Your task to perform on an android device: uninstall "Walmart Shopping & Grocery" Image 0: 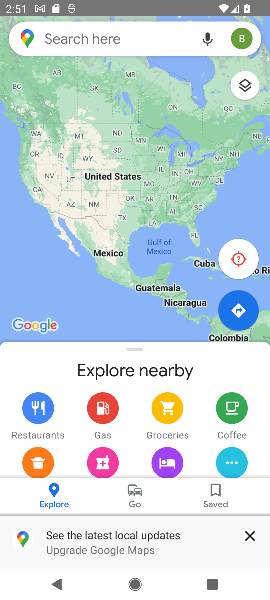
Step 0: press home button
Your task to perform on an android device: uninstall "Walmart Shopping & Grocery" Image 1: 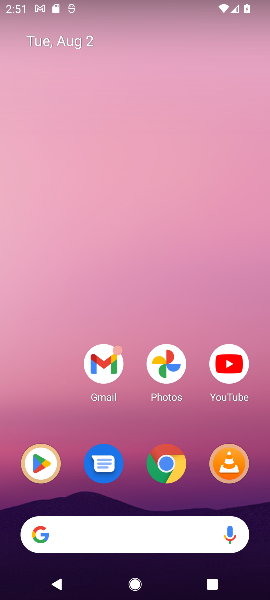
Step 1: click (44, 453)
Your task to perform on an android device: uninstall "Walmart Shopping & Grocery" Image 2: 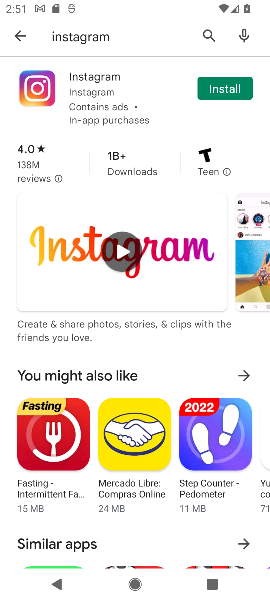
Step 2: click (207, 30)
Your task to perform on an android device: uninstall "Walmart Shopping & Grocery" Image 3: 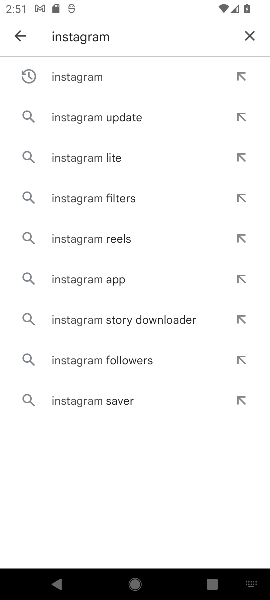
Step 3: click (248, 35)
Your task to perform on an android device: uninstall "Walmart Shopping & Grocery" Image 4: 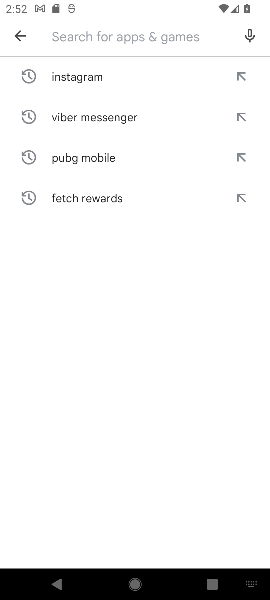
Step 4: type "Walmart Shopping & Grocery"
Your task to perform on an android device: uninstall "Walmart Shopping & Grocery" Image 5: 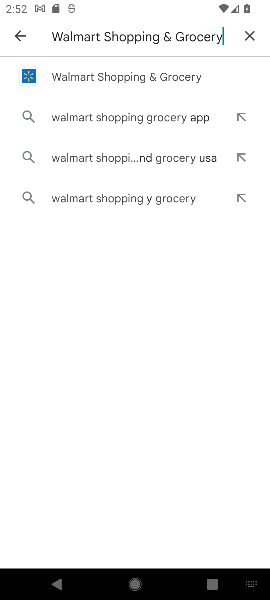
Step 5: click (122, 79)
Your task to perform on an android device: uninstall "Walmart Shopping & Grocery" Image 6: 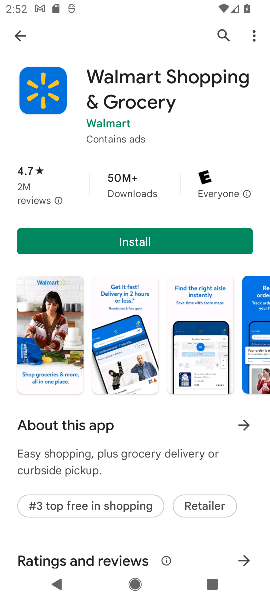
Step 6: task complete